Your task to perform on an android device: toggle show notifications on the lock screen Image 0: 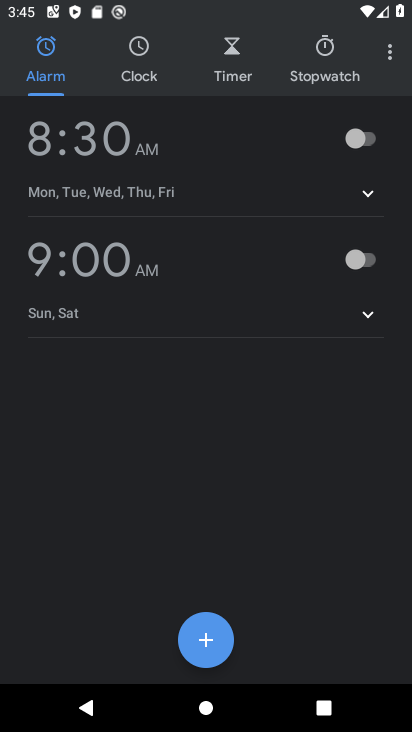
Step 0: press home button
Your task to perform on an android device: toggle show notifications on the lock screen Image 1: 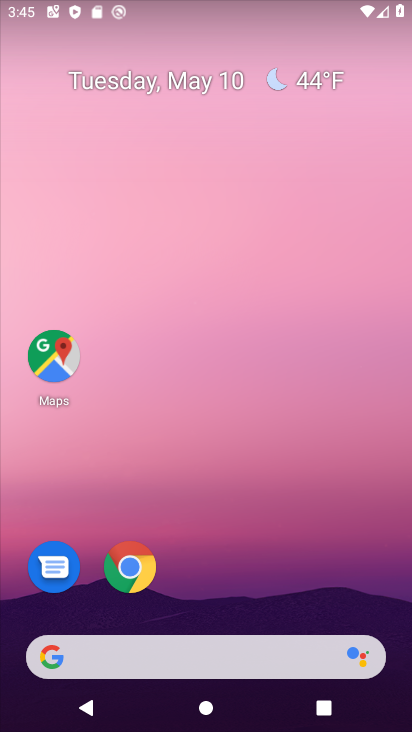
Step 1: drag from (222, 577) to (189, 24)
Your task to perform on an android device: toggle show notifications on the lock screen Image 2: 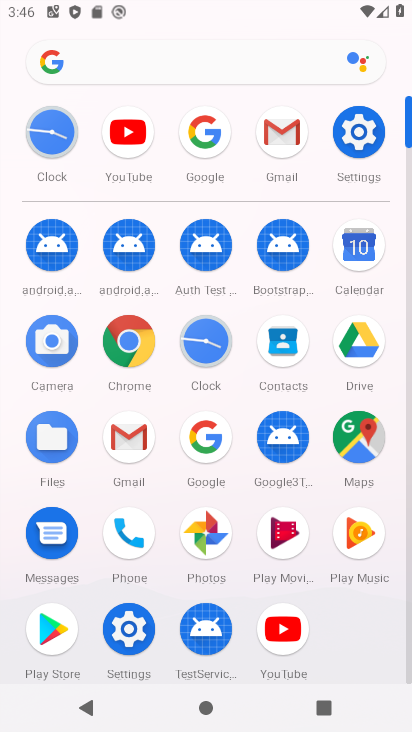
Step 2: click (357, 131)
Your task to perform on an android device: toggle show notifications on the lock screen Image 3: 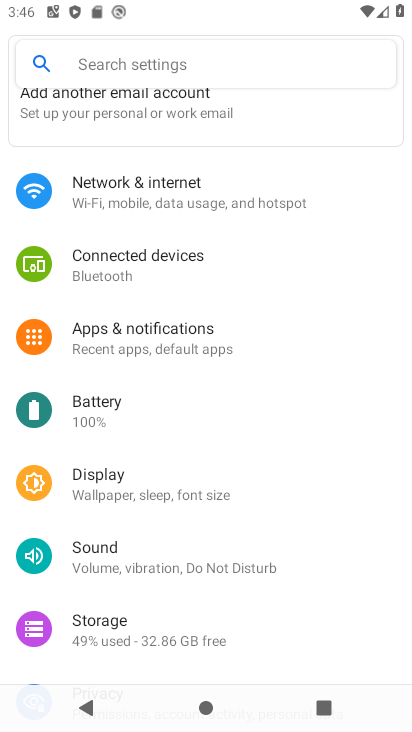
Step 3: click (101, 348)
Your task to perform on an android device: toggle show notifications on the lock screen Image 4: 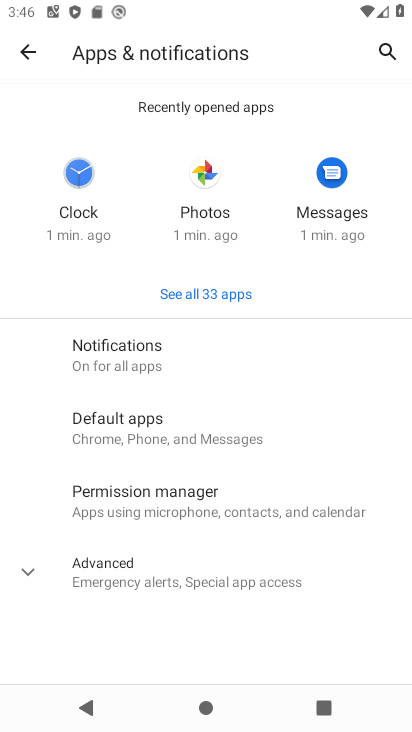
Step 4: click (129, 346)
Your task to perform on an android device: toggle show notifications on the lock screen Image 5: 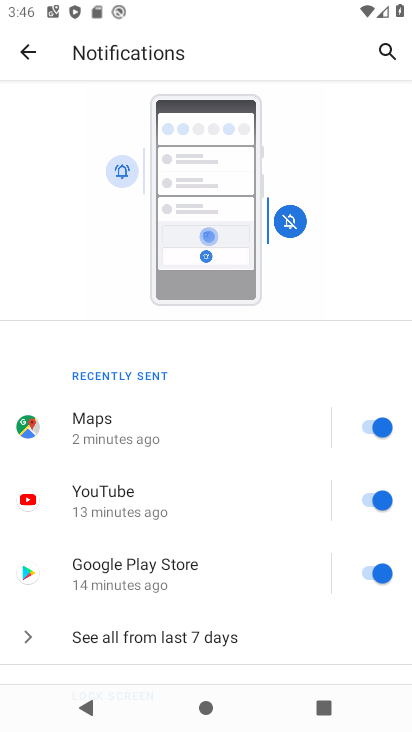
Step 5: drag from (135, 548) to (167, 394)
Your task to perform on an android device: toggle show notifications on the lock screen Image 6: 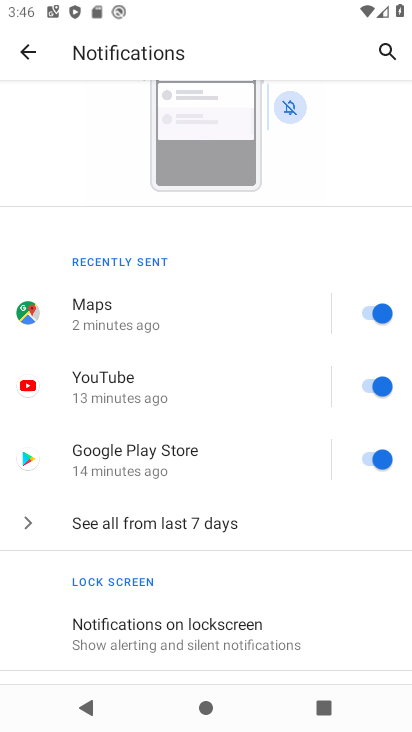
Step 6: drag from (139, 606) to (207, 414)
Your task to perform on an android device: toggle show notifications on the lock screen Image 7: 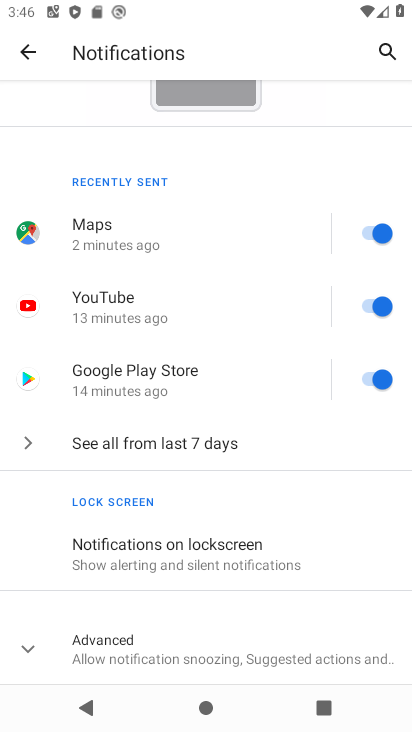
Step 7: click (161, 555)
Your task to perform on an android device: toggle show notifications on the lock screen Image 8: 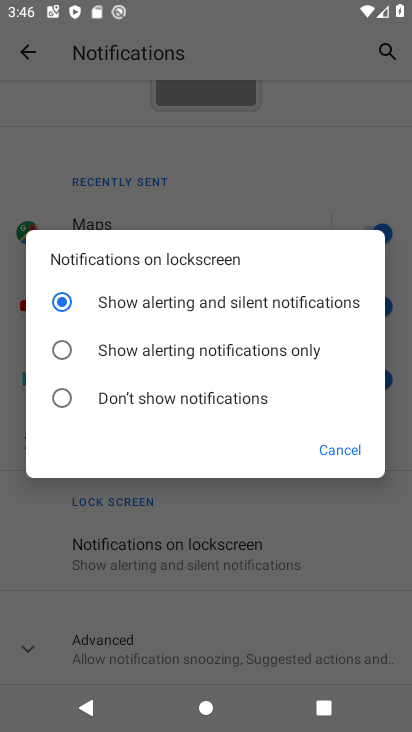
Step 8: click (67, 394)
Your task to perform on an android device: toggle show notifications on the lock screen Image 9: 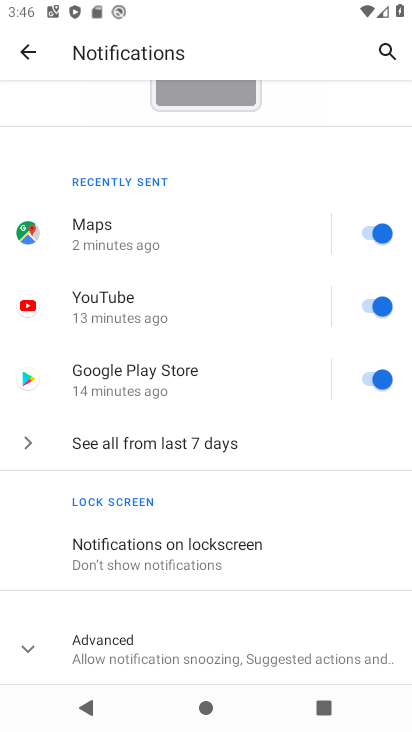
Step 9: task complete